Your task to perform on an android device: Go to Google Image 0: 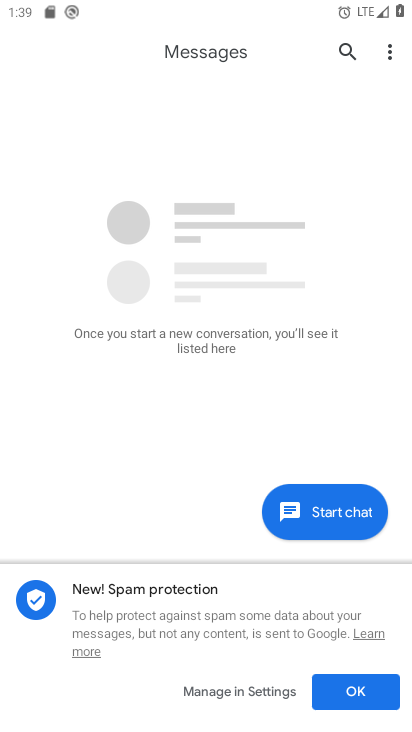
Step 0: press home button
Your task to perform on an android device: Go to Google Image 1: 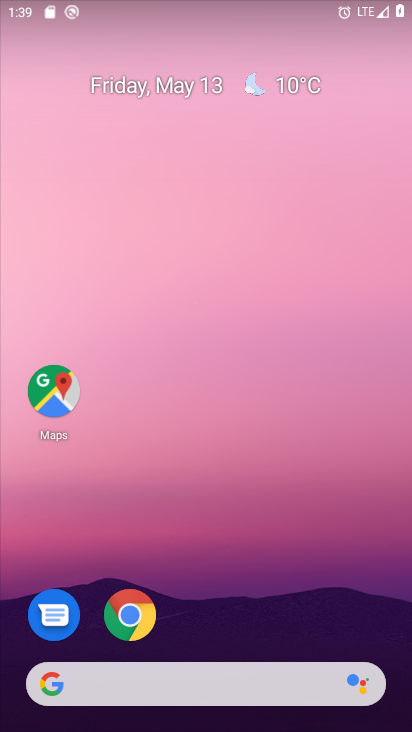
Step 1: click (163, 691)
Your task to perform on an android device: Go to Google Image 2: 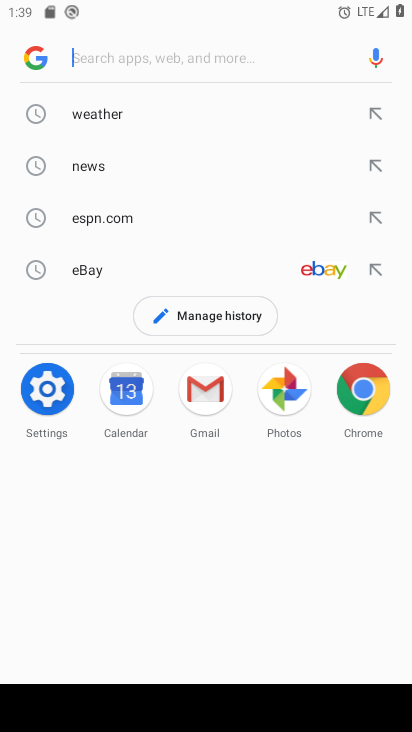
Step 2: click (23, 48)
Your task to perform on an android device: Go to Google Image 3: 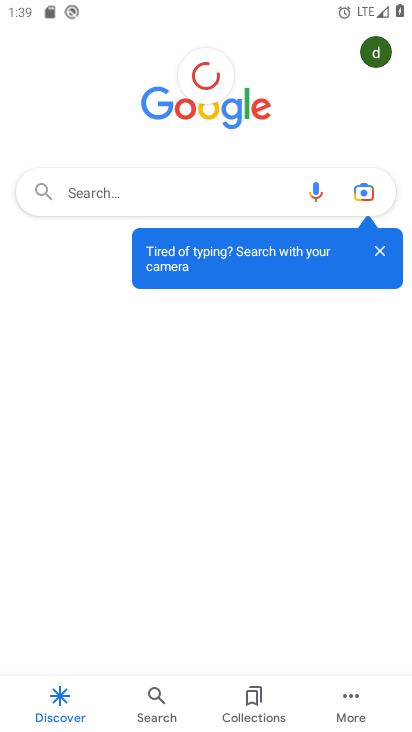
Step 3: task complete